Your task to perform on an android device: Open Amazon Image 0: 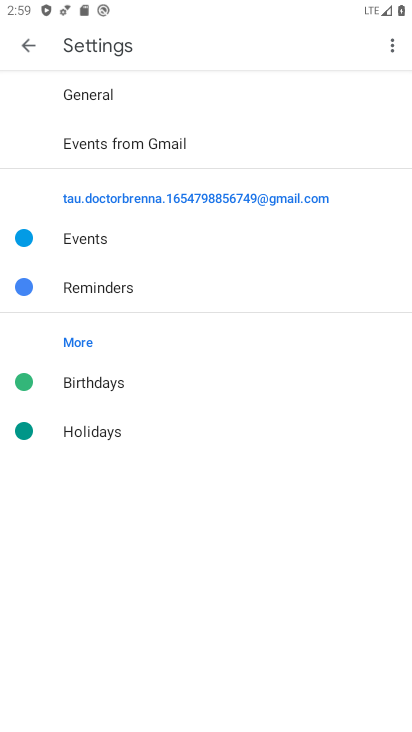
Step 0: press home button
Your task to perform on an android device: Open Amazon Image 1: 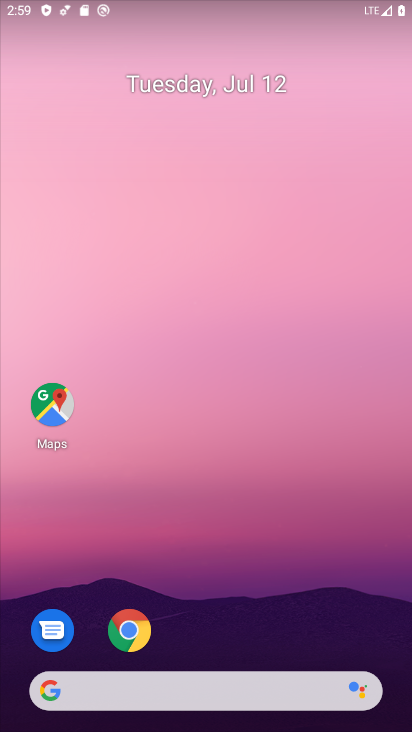
Step 1: drag from (183, 677) to (229, 24)
Your task to perform on an android device: Open Amazon Image 2: 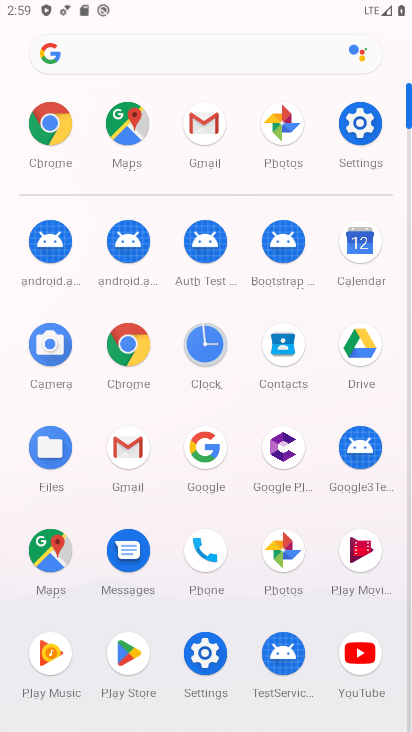
Step 2: click (132, 338)
Your task to perform on an android device: Open Amazon Image 3: 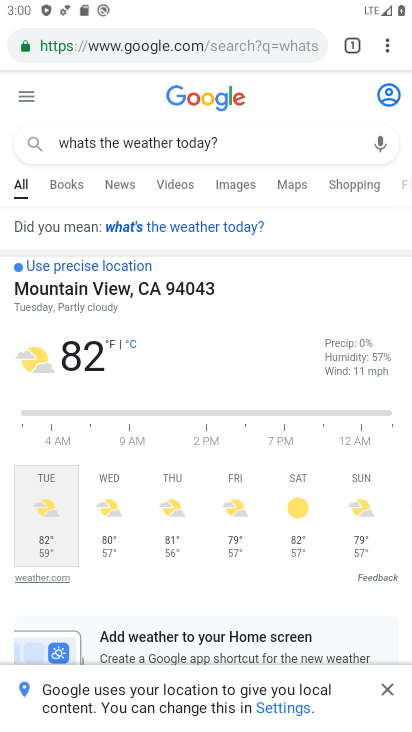
Step 3: click (387, 45)
Your task to perform on an android device: Open Amazon Image 4: 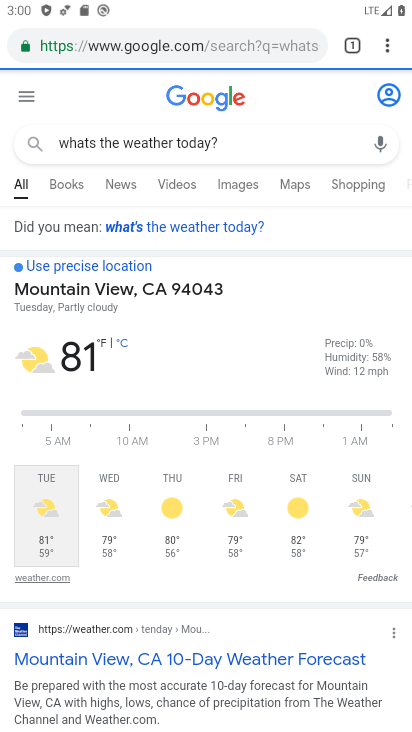
Step 4: drag from (386, 49) to (319, 82)
Your task to perform on an android device: Open Amazon Image 5: 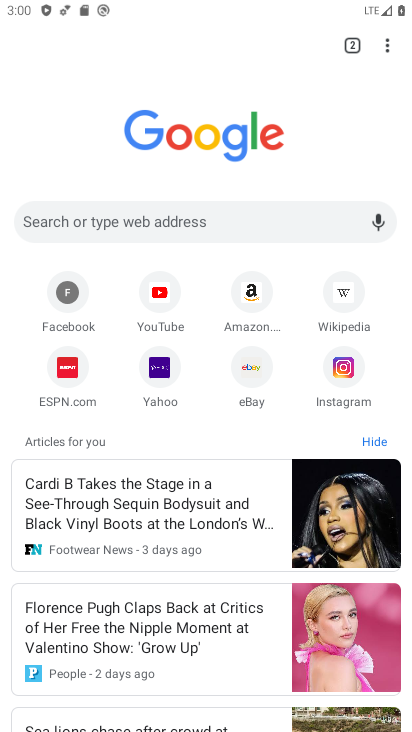
Step 5: click (254, 297)
Your task to perform on an android device: Open Amazon Image 6: 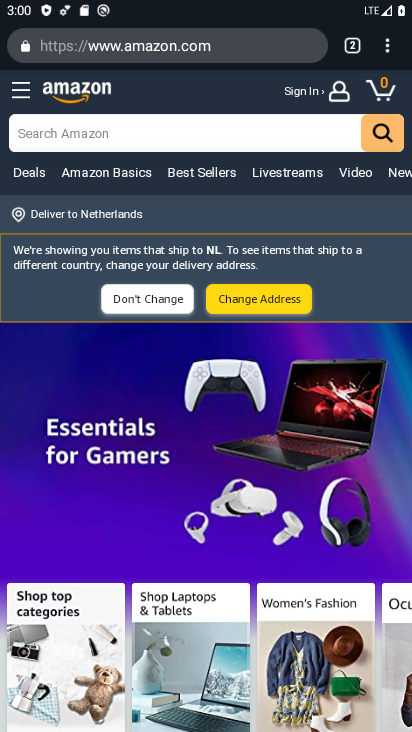
Step 6: task complete